Your task to perform on an android device: check storage Image 0: 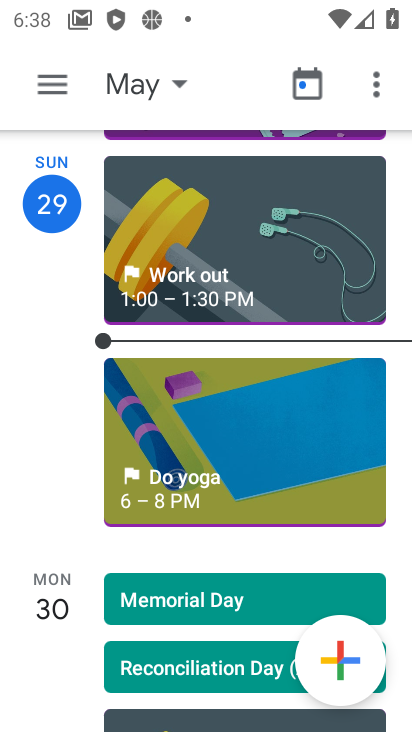
Step 0: press home button
Your task to perform on an android device: check storage Image 1: 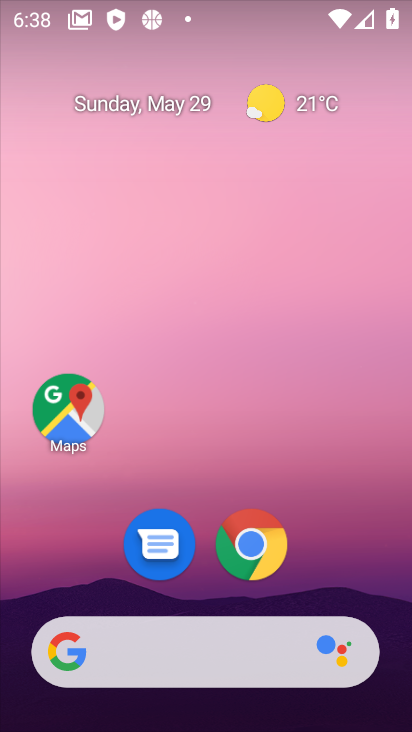
Step 1: click (341, 503)
Your task to perform on an android device: check storage Image 2: 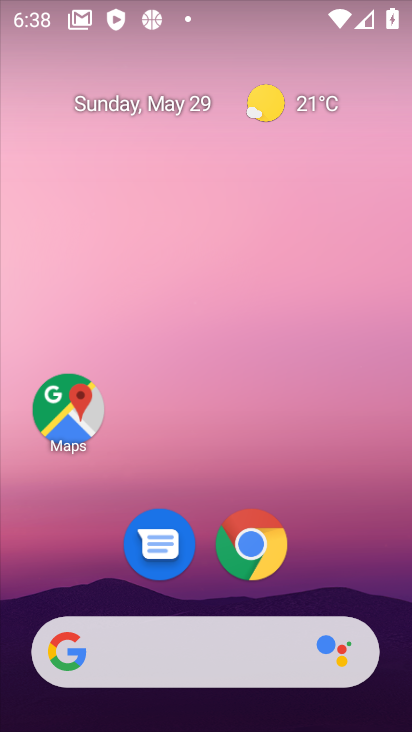
Step 2: drag from (341, 503) to (129, 163)
Your task to perform on an android device: check storage Image 3: 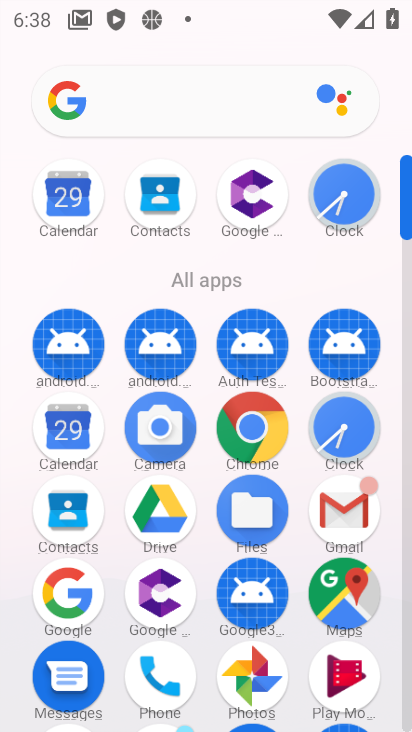
Step 3: drag from (212, 642) to (196, 178)
Your task to perform on an android device: check storage Image 4: 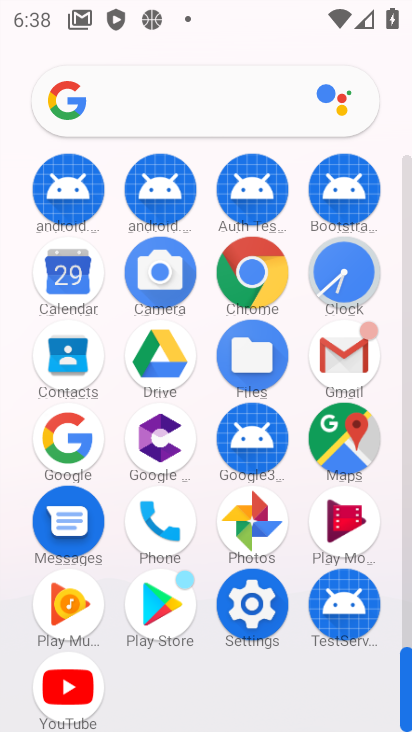
Step 4: click (262, 604)
Your task to perform on an android device: check storage Image 5: 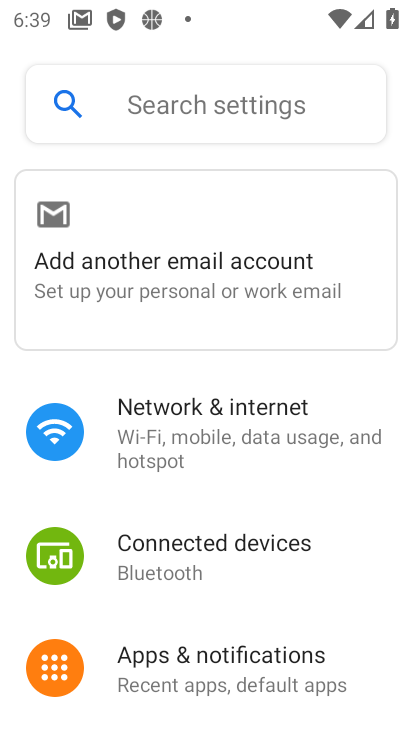
Step 5: drag from (225, 589) to (161, 191)
Your task to perform on an android device: check storage Image 6: 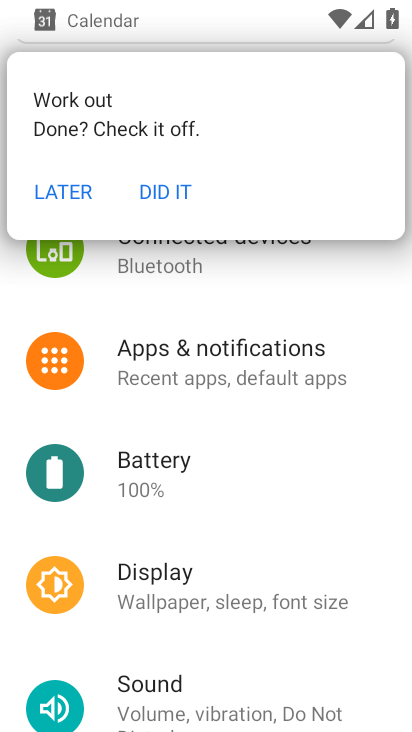
Step 6: drag from (193, 635) to (175, 317)
Your task to perform on an android device: check storage Image 7: 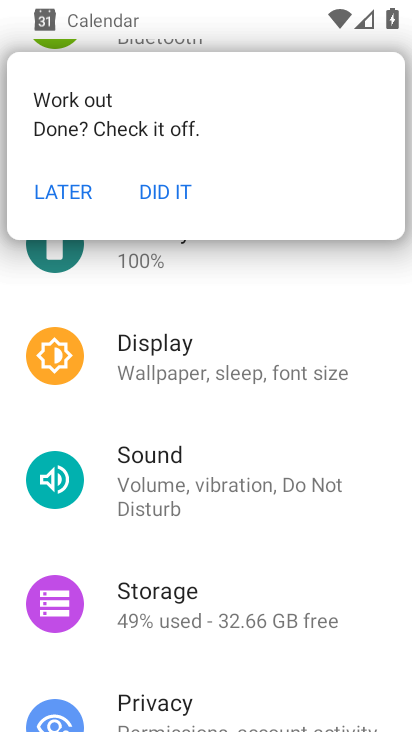
Step 7: click (164, 605)
Your task to perform on an android device: check storage Image 8: 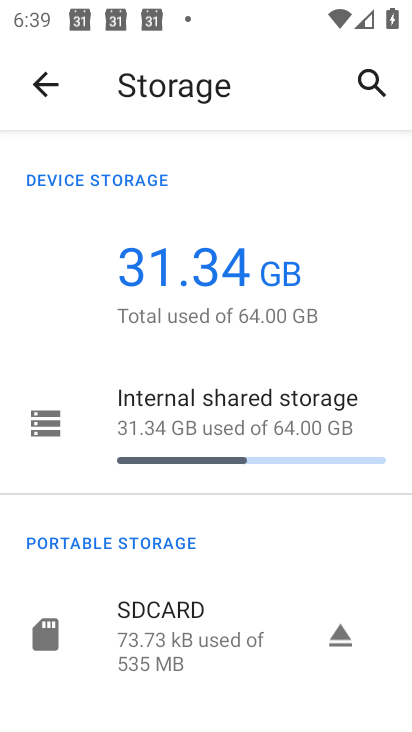
Step 8: task complete